Your task to perform on an android device: Open Android settings Image 0: 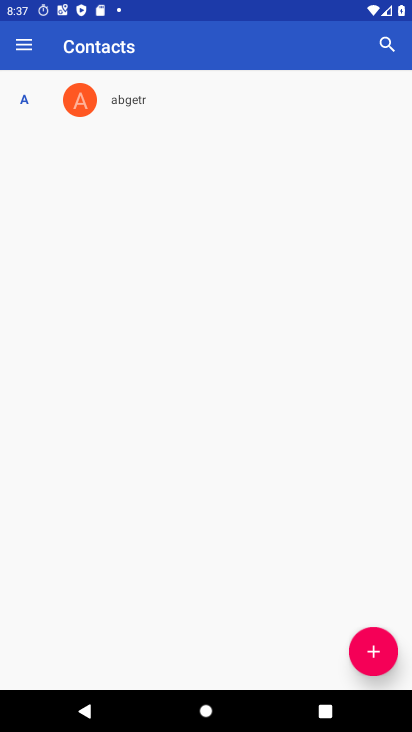
Step 0: press home button
Your task to perform on an android device: Open Android settings Image 1: 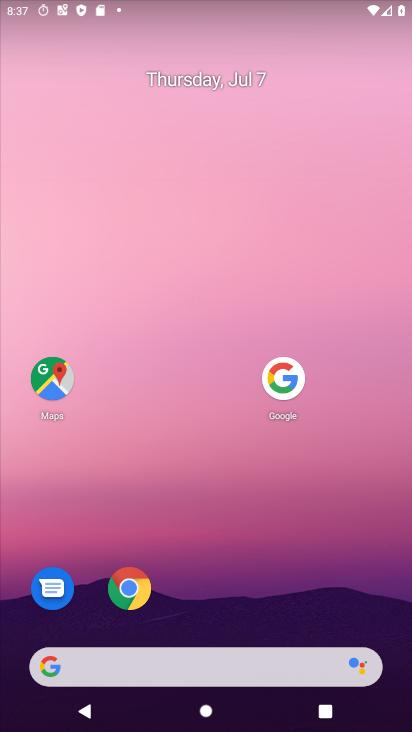
Step 1: drag from (186, 649) to (288, 163)
Your task to perform on an android device: Open Android settings Image 2: 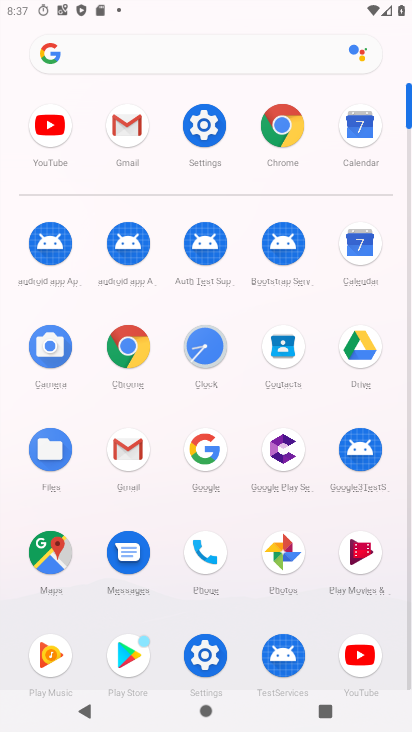
Step 2: click (204, 127)
Your task to perform on an android device: Open Android settings Image 3: 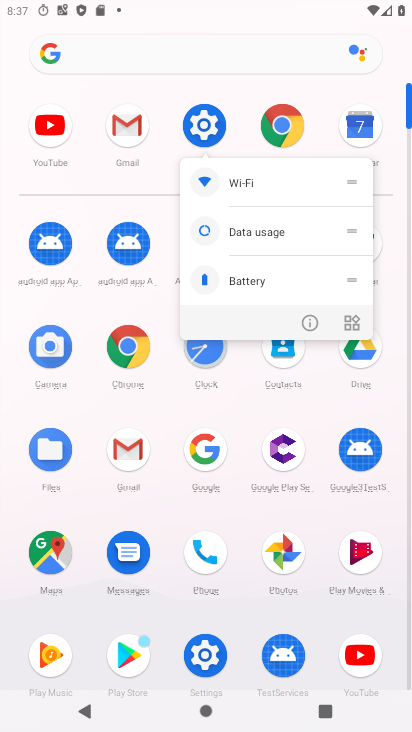
Step 3: click (204, 127)
Your task to perform on an android device: Open Android settings Image 4: 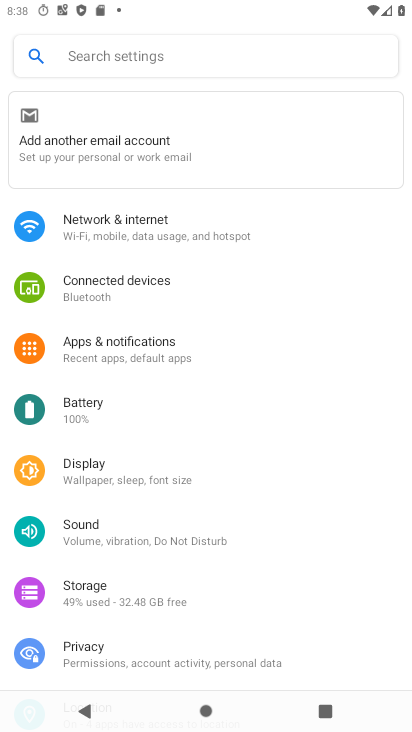
Step 4: task complete